Your task to perform on an android device: Open ESPN.com Image 0: 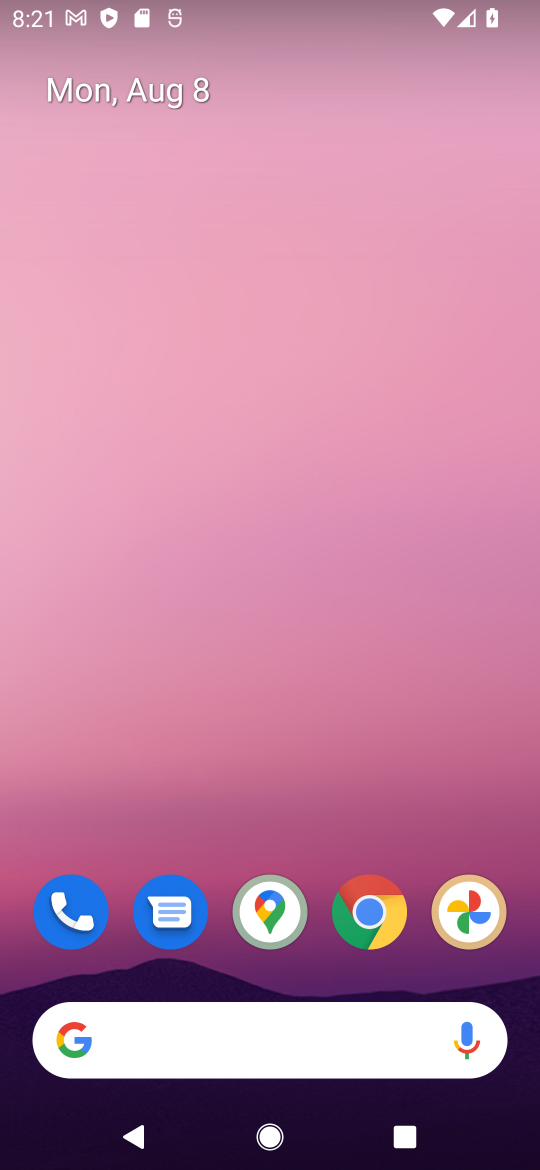
Step 0: drag from (441, 959) to (268, 128)
Your task to perform on an android device: Open ESPN.com Image 1: 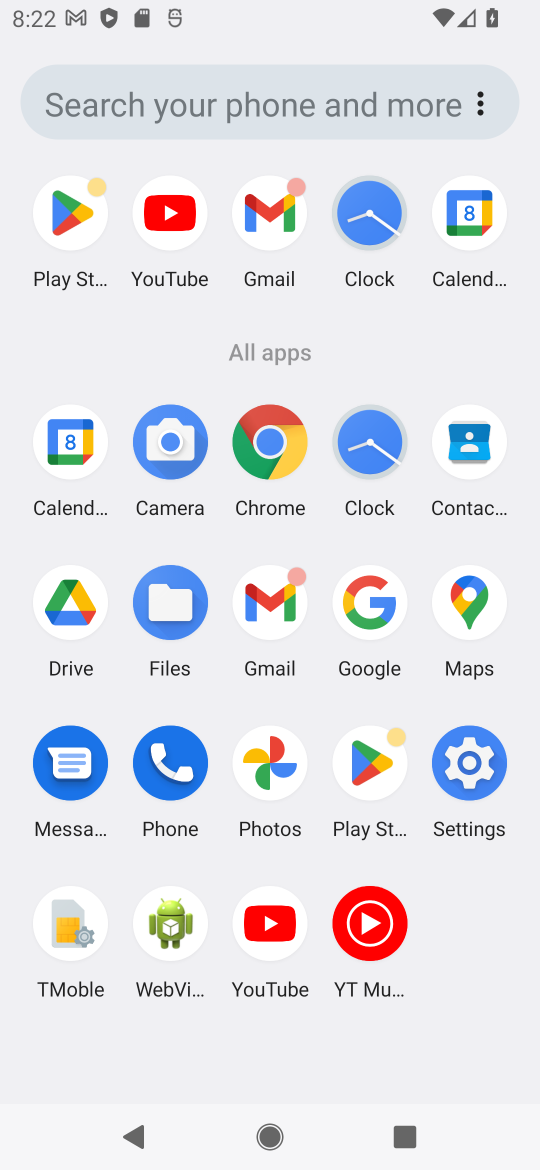
Step 1: click (364, 600)
Your task to perform on an android device: Open ESPN.com Image 2: 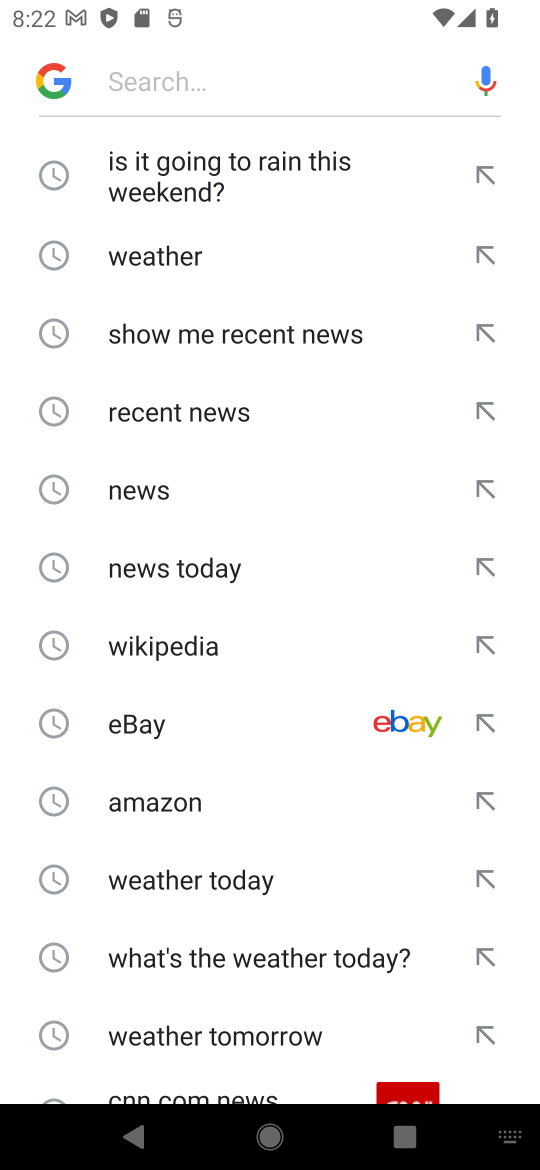
Step 2: type "ESPN.com"
Your task to perform on an android device: Open ESPN.com Image 3: 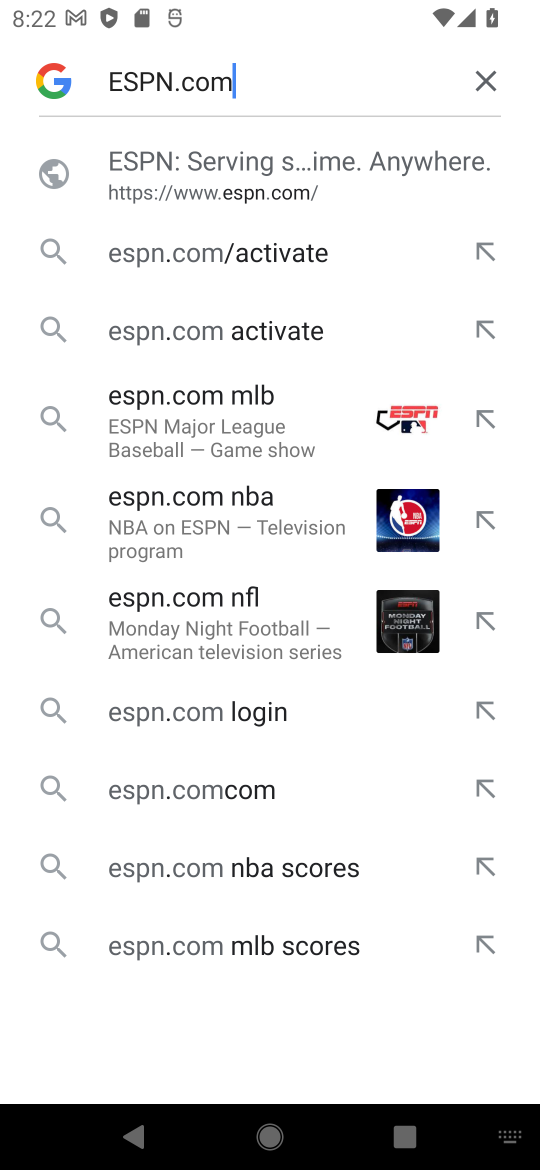
Step 3: click (282, 168)
Your task to perform on an android device: Open ESPN.com Image 4: 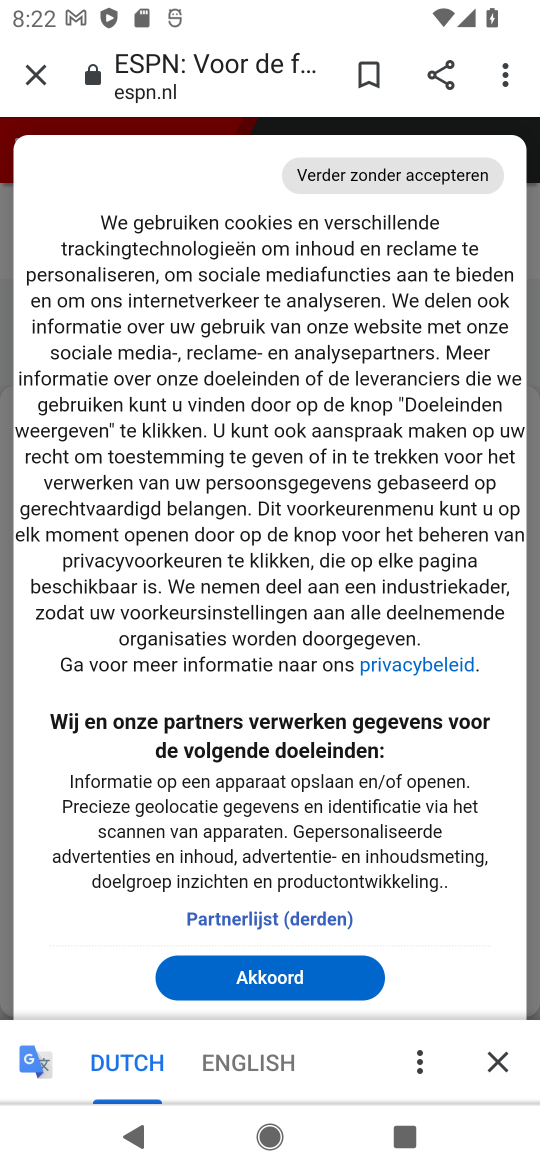
Step 4: task complete